Your task to perform on an android device: Do I have any events tomorrow? Image 0: 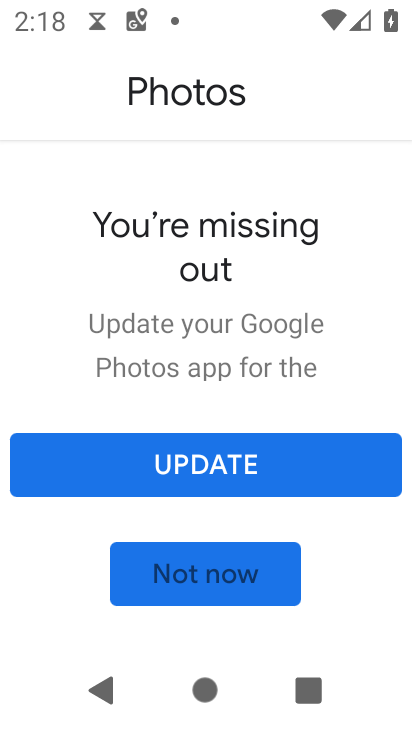
Step 0: press home button
Your task to perform on an android device: Do I have any events tomorrow? Image 1: 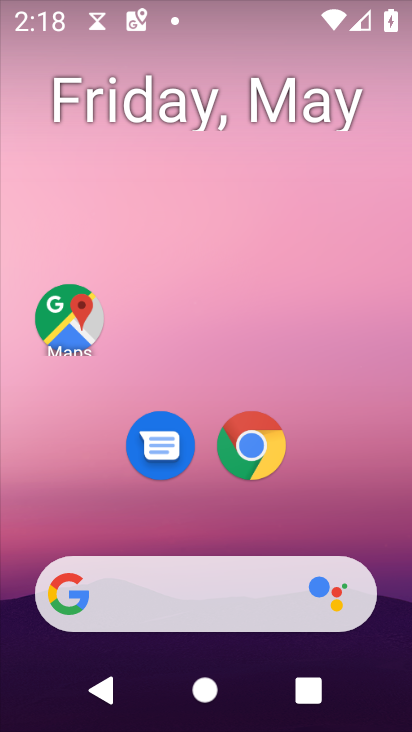
Step 1: drag from (202, 525) to (243, 56)
Your task to perform on an android device: Do I have any events tomorrow? Image 2: 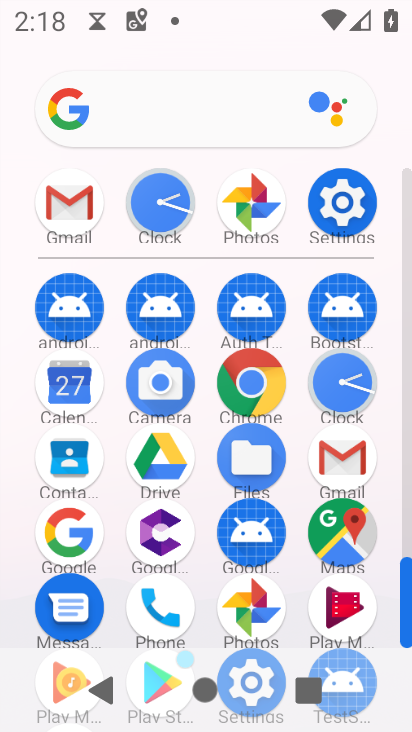
Step 2: click (68, 381)
Your task to perform on an android device: Do I have any events tomorrow? Image 3: 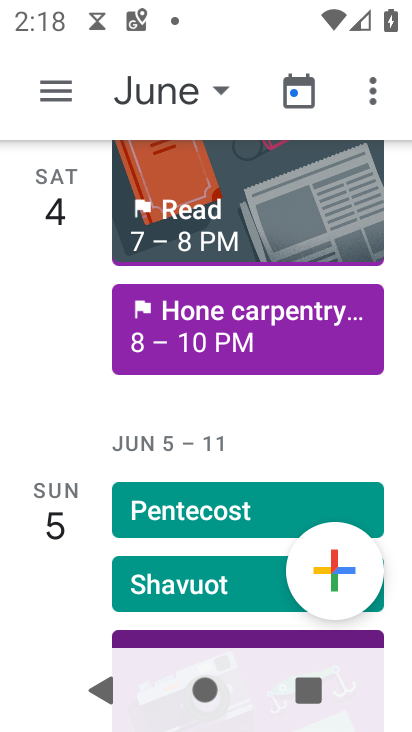
Step 3: click (213, 89)
Your task to perform on an android device: Do I have any events tomorrow? Image 4: 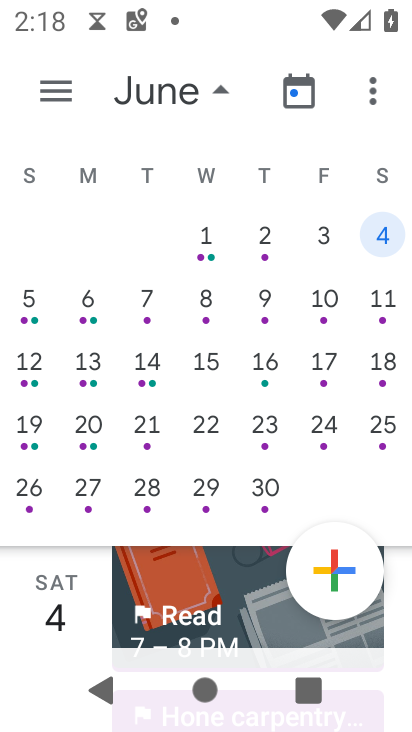
Step 4: drag from (63, 393) to (410, 408)
Your task to perform on an android device: Do I have any events tomorrow? Image 5: 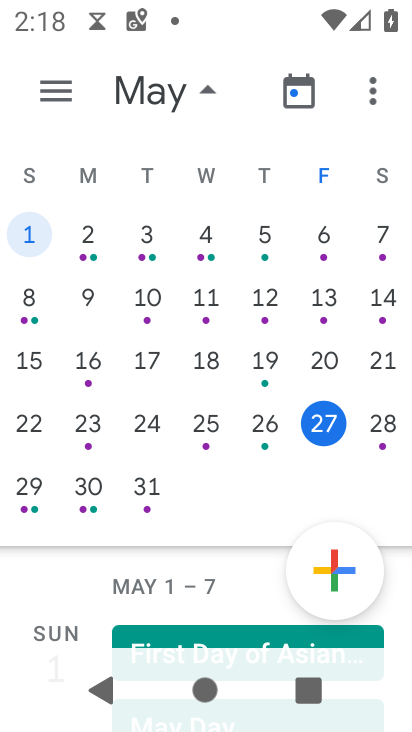
Step 5: click (375, 414)
Your task to perform on an android device: Do I have any events tomorrow? Image 6: 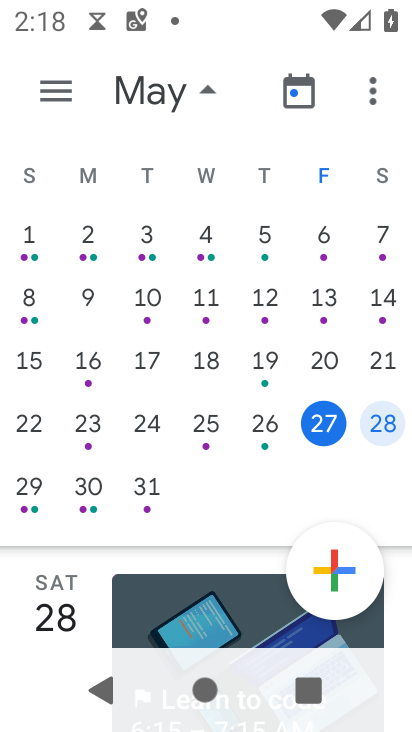
Step 6: click (205, 97)
Your task to perform on an android device: Do I have any events tomorrow? Image 7: 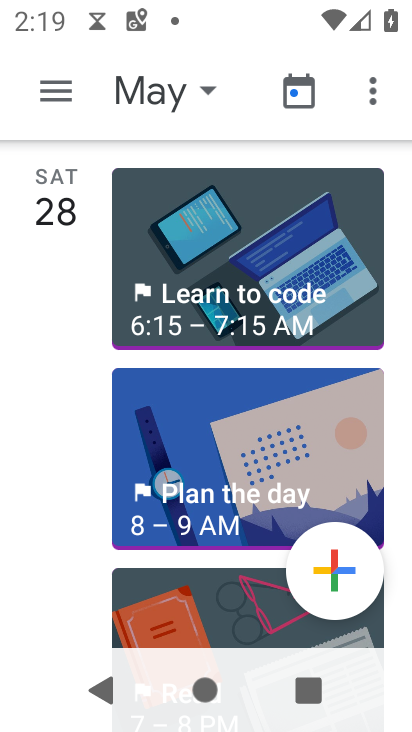
Step 7: click (63, 262)
Your task to perform on an android device: Do I have any events tomorrow? Image 8: 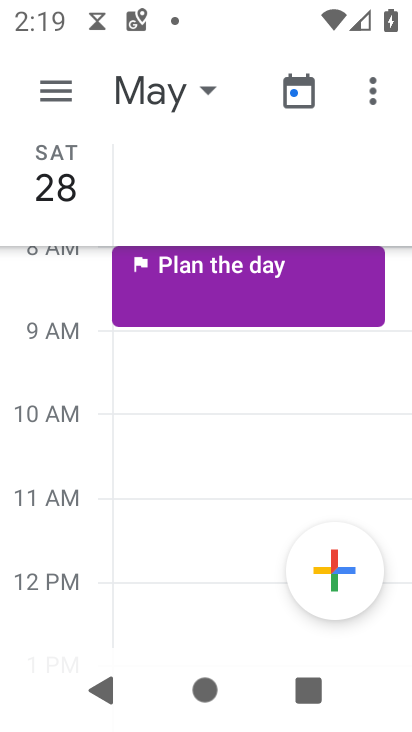
Step 8: task complete